Your task to perform on an android device: turn off notifications settings in the gmail app Image 0: 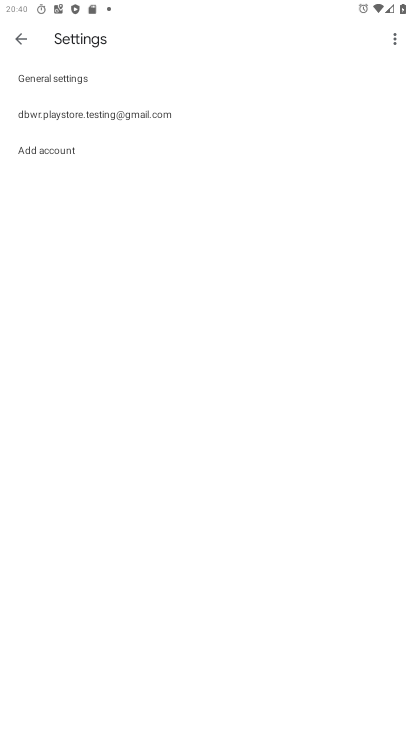
Step 0: press home button
Your task to perform on an android device: turn off notifications settings in the gmail app Image 1: 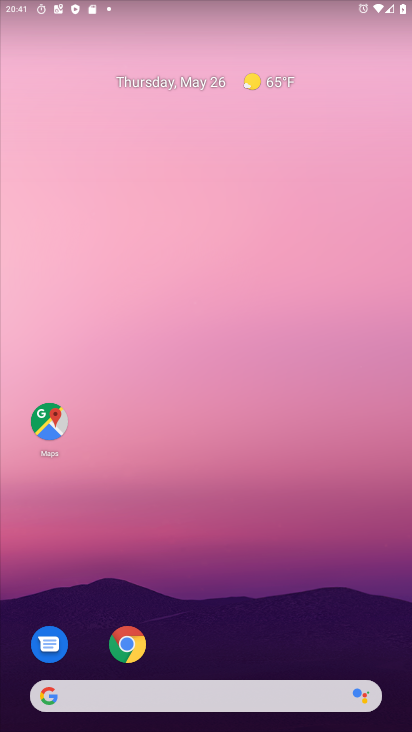
Step 1: drag from (179, 640) to (271, 135)
Your task to perform on an android device: turn off notifications settings in the gmail app Image 2: 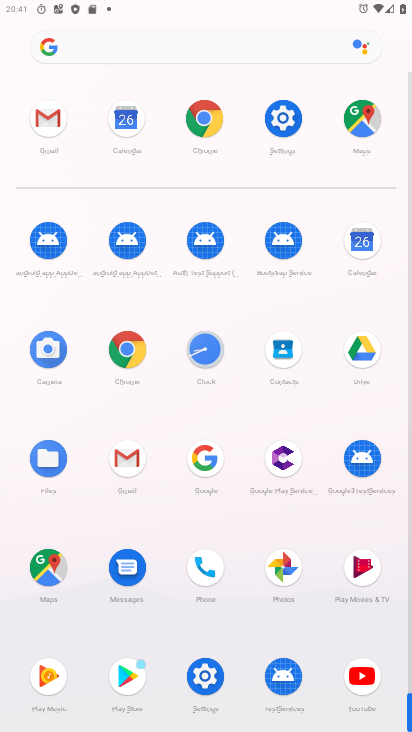
Step 2: click (118, 448)
Your task to perform on an android device: turn off notifications settings in the gmail app Image 3: 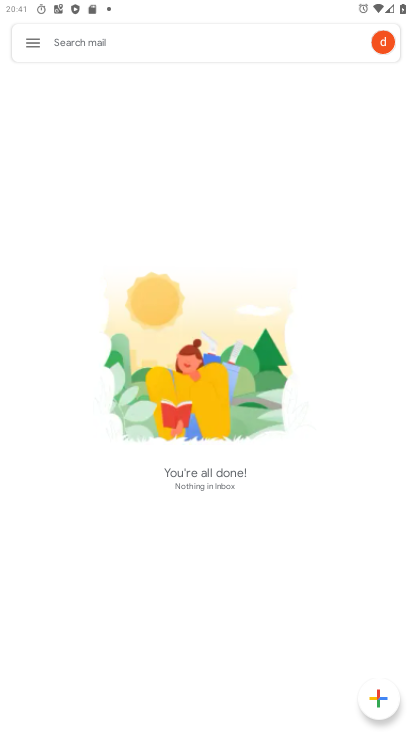
Step 3: drag from (189, 623) to (195, 360)
Your task to perform on an android device: turn off notifications settings in the gmail app Image 4: 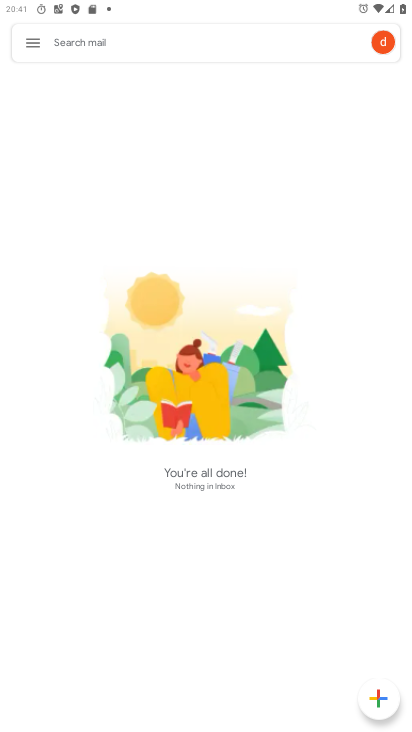
Step 4: click (212, 542)
Your task to perform on an android device: turn off notifications settings in the gmail app Image 5: 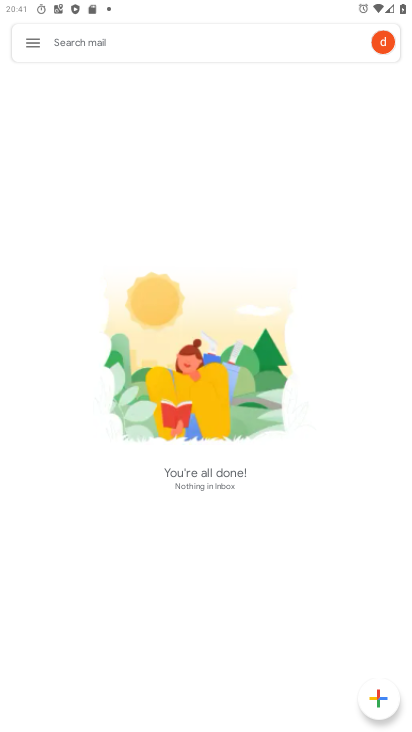
Step 5: click (24, 50)
Your task to perform on an android device: turn off notifications settings in the gmail app Image 6: 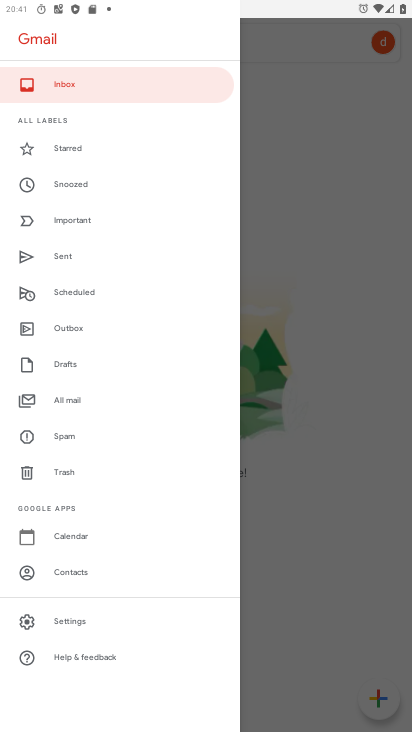
Step 6: click (79, 620)
Your task to perform on an android device: turn off notifications settings in the gmail app Image 7: 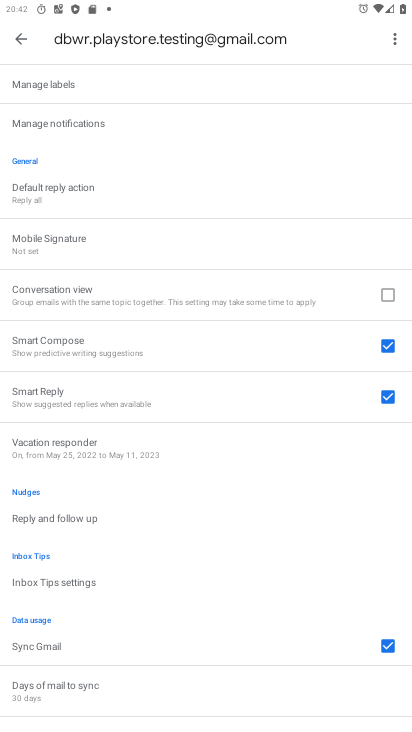
Step 7: drag from (183, 615) to (248, 256)
Your task to perform on an android device: turn off notifications settings in the gmail app Image 8: 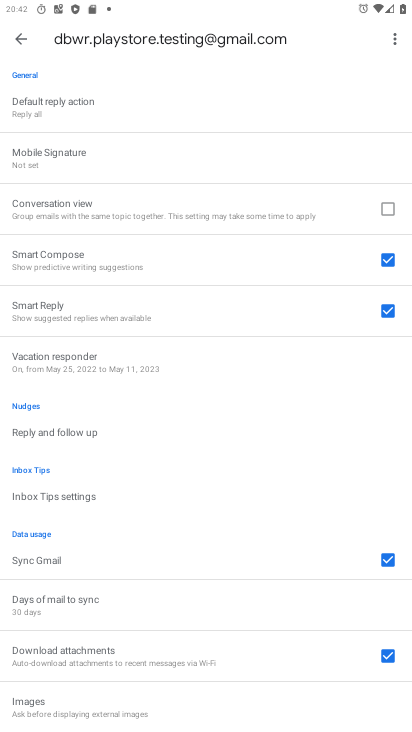
Step 8: drag from (182, 160) to (194, 583)
Your task to perform on an android device: turn off notifications settings in the gmail app Image 9: 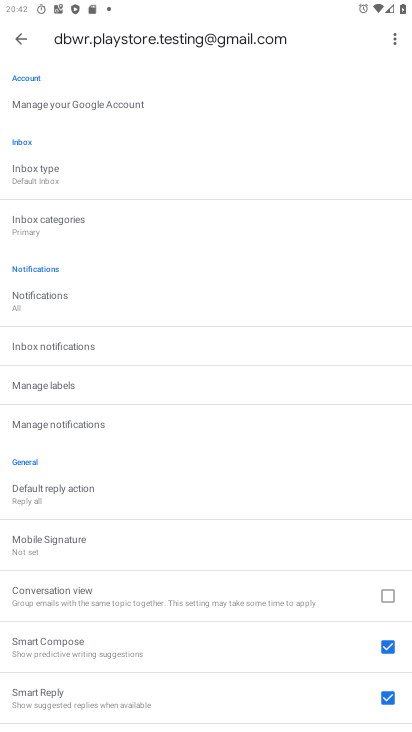
Step 9: click (116, 419)
Your task to perform on an android device: turn off notifications settings in the gmail app Image 10: 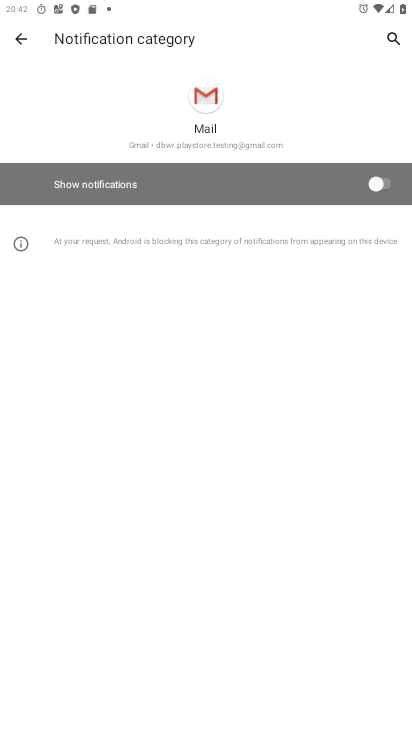
Step 10: task complete